Your task to perform on an android device: open sync settings in chrome Image 0: 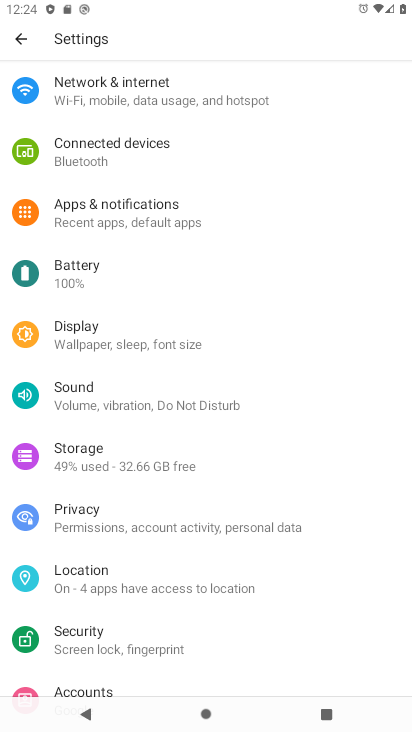
Step 0: press back button
Your task to perform on an android device: open sync settings in chrome Image 1: 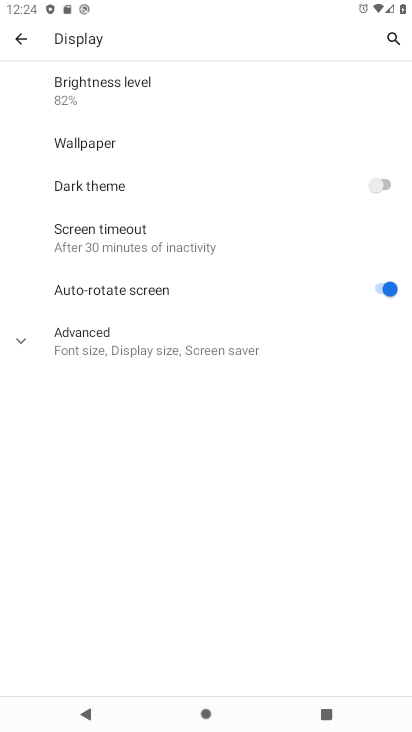
Step 1: press back button
Your task to perform on an android device: open sync settings in chrome Image 2: 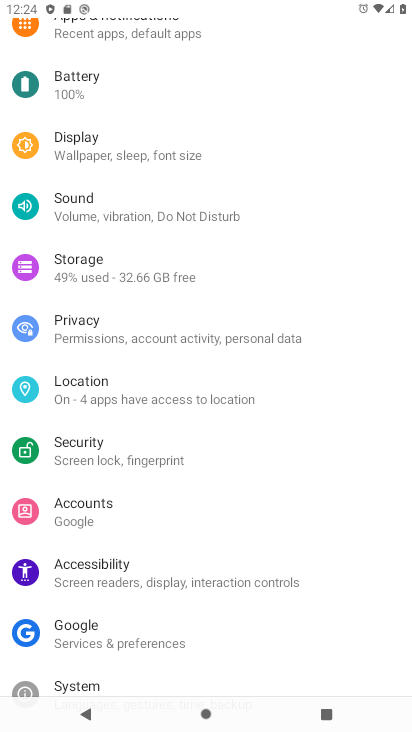
Step 2: press back button
Your task to perform on an android device: open sync settings in chrome Image 3: 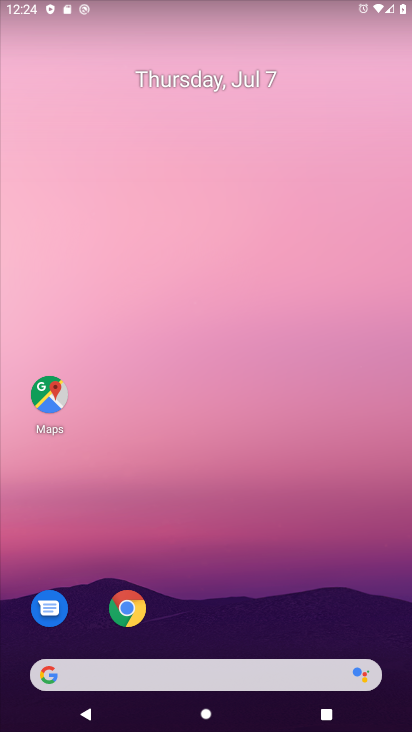
Step 3: click (125, 595)
Your task to perform on an android device: open sync settings in chrome Image 4: 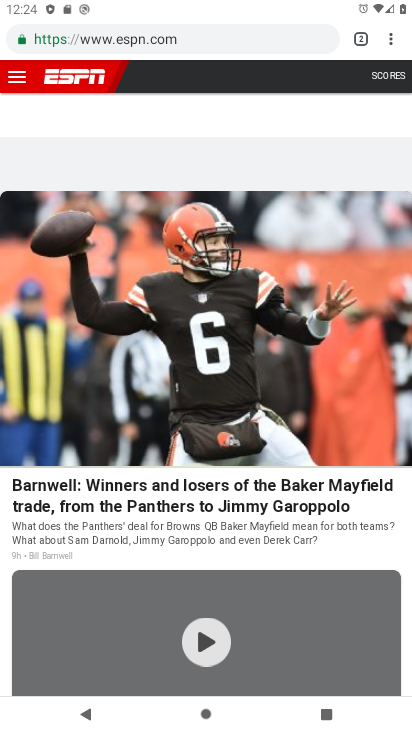
Step 4: drag from (387, 40) to (272, 467)
Your task to perform on an android device: open sync settings in chrome Image 5: 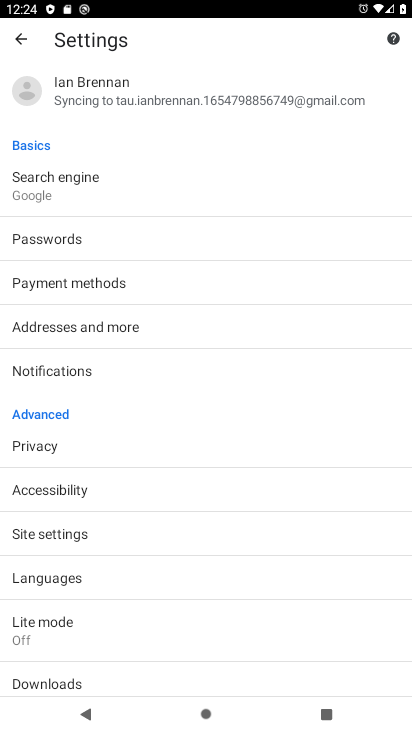
Step 5: click (73, 528)
Your task to perform on an android device: open sync settings in chrome Image 6: 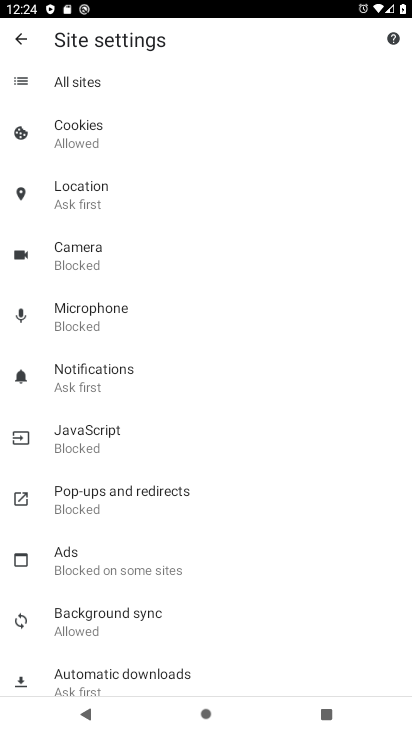
Step 6: click (123, 621)
Your task to perform on an android device: open sync settings in chrome Image 7: 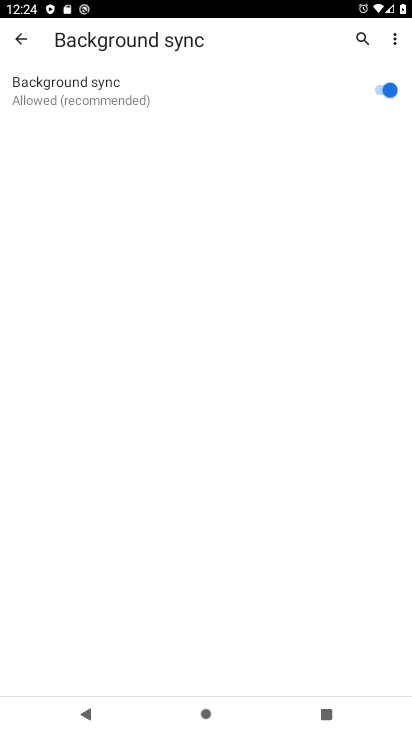
Step 7: task complete